Your task to perform on an android device: Turn off the flashlight Image 0: 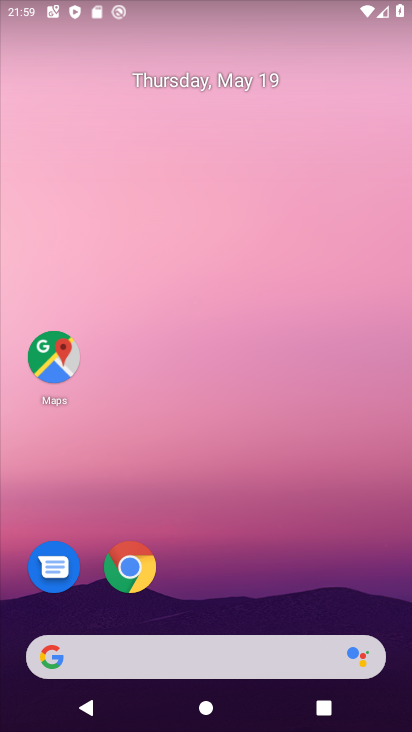
Step 0: press home button
Your task to perform on an android device: Turn off the flashlight Image 1: 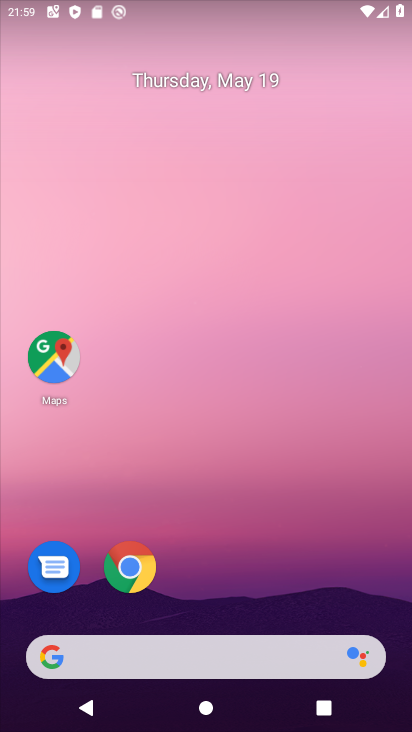
Step 1: drag from (203, 595) to (228, 46)
Your task to perform on an android device: Turn off the flashlight Image 2: 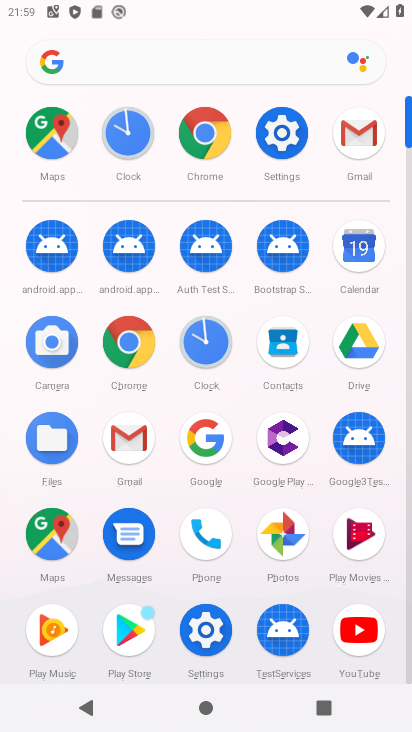
Step 2: click (280, 127)
Your task to perform on an android device: Turn off the flashlight Image 3: 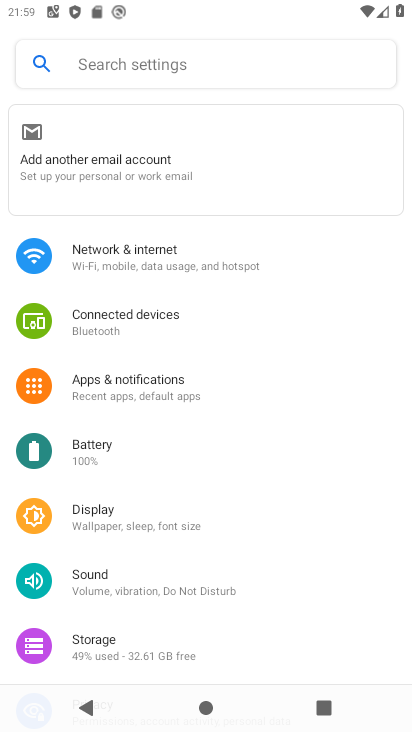
Step 3: click (128, 68)
Your task to perform on an android device: Turn off the flashlight Image 4: 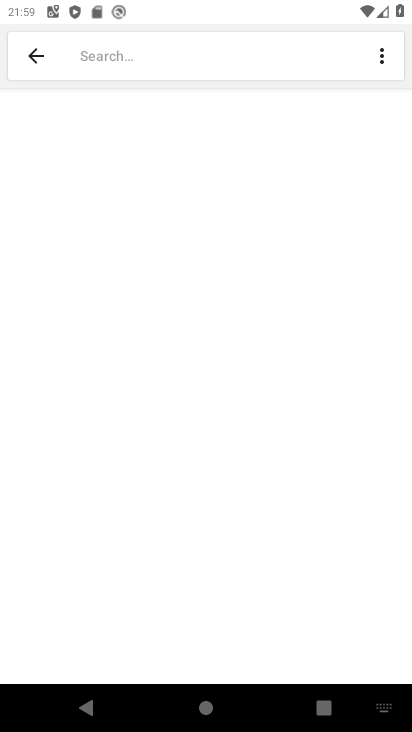
Step 4: type "flashlight"
Your task to perform on an android device: Turn off the flashlight Image 5: 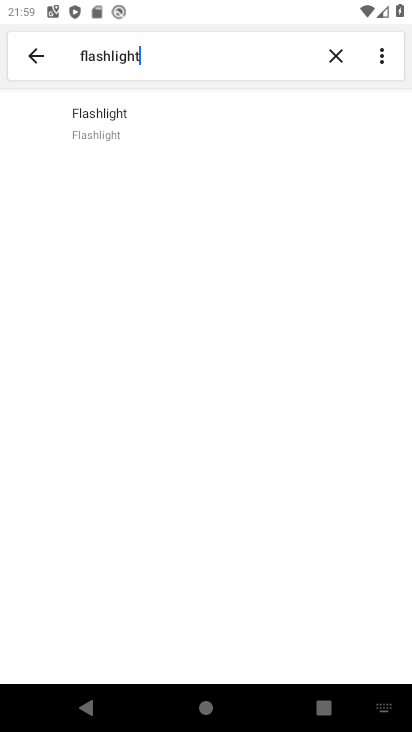
Step 5: click (136, 125)
Your task to perform on an android device: Turn off the flashlight Image 6: 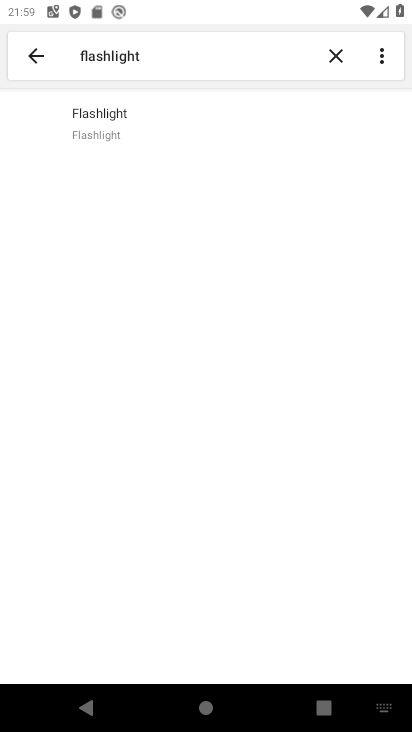
Step 6: click (136, 125)
Your task to perform on an android device: Turn off the flashlight Image 7: 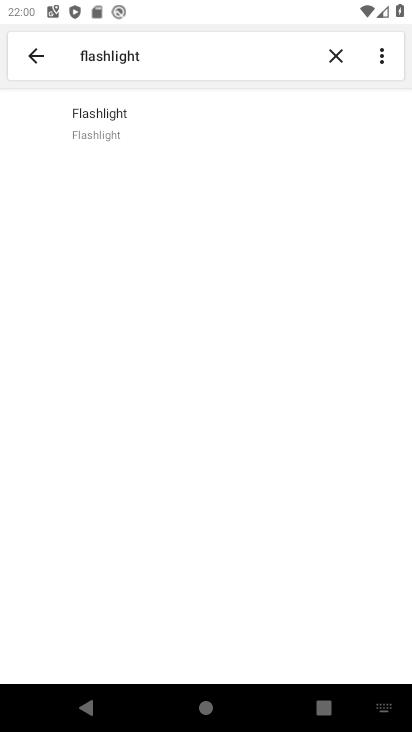
Step 7: task complete